Your task to perform on an android device: When is my next appointment? Image 0: 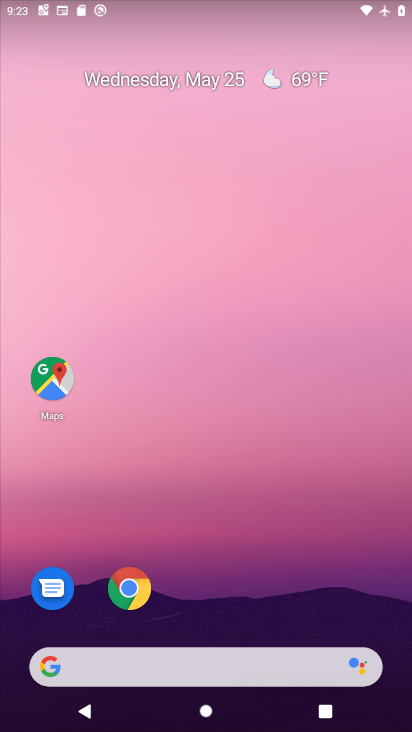
Step 0: drag from (322, 594) to (360, 169)
Your task to perform on an android device: When is my next appointment? Image 1: 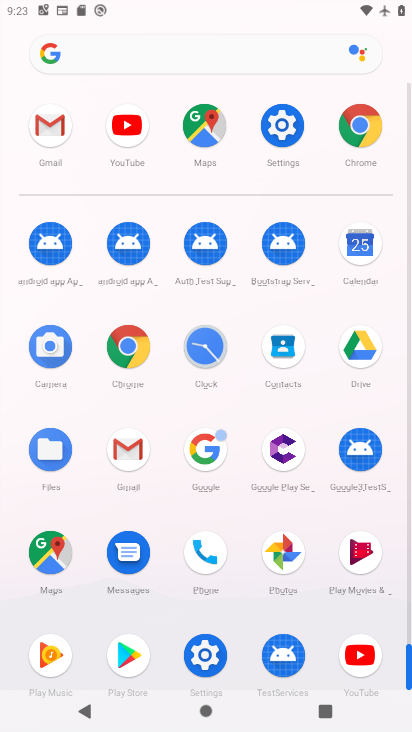
Step 1: click (368, 247)
Your task to perform on an android device: When is my next appointment? Image 2: 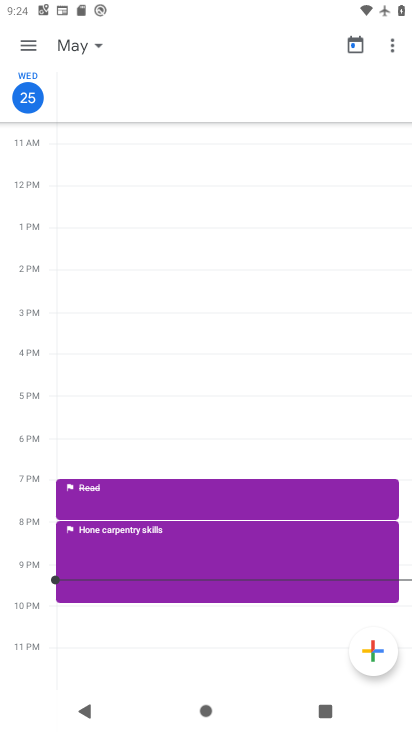
Step 2: click (97, 48)
Your task to perform on an android device: When is my next appointment? Image 3: 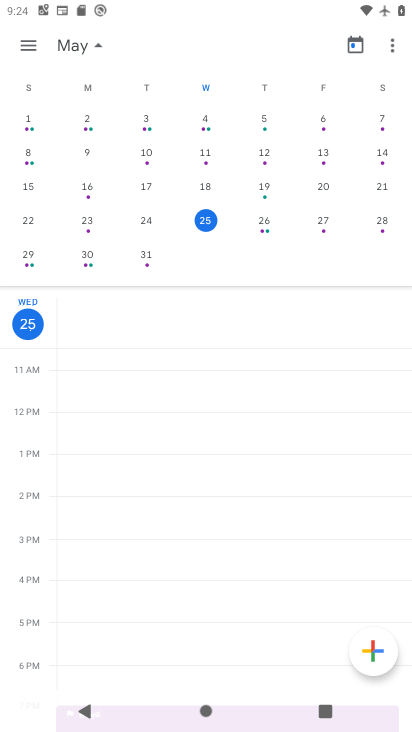
Step 3: click (22, 43)
Your task to perform on an android device: When is my next appointment? Image 4: 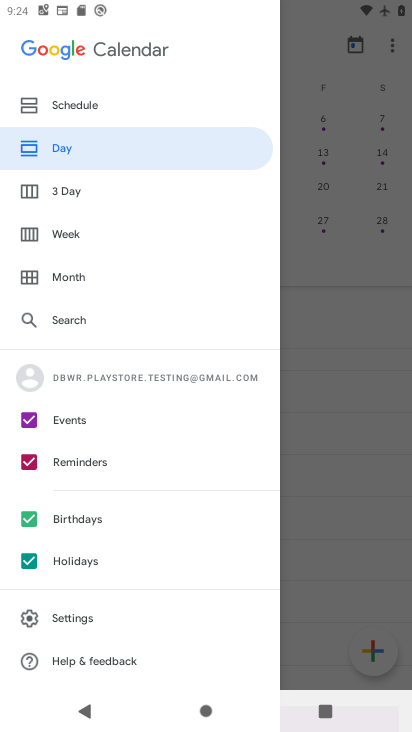
Step 4: click (90, 103)
Your task to perform on an android device: When is my next appointment? Image 5: 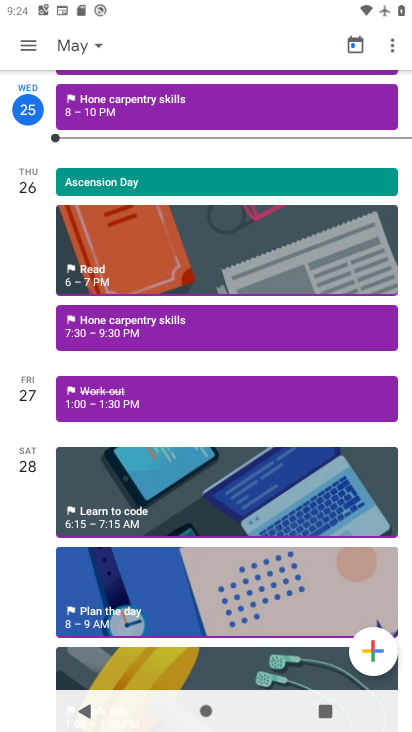
Step 5: click (159, 393)
Your task to perform on an android device: When is my next appointment? Image 6: 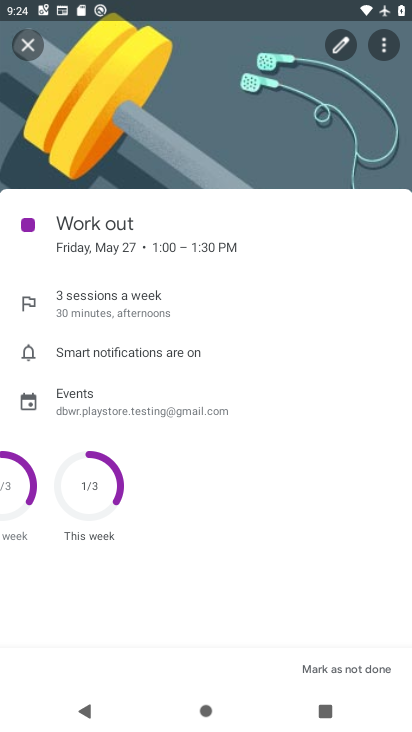
Step 6: task complete